Your task to perform on an android device: turn on javascript in the chrome app Image 0: 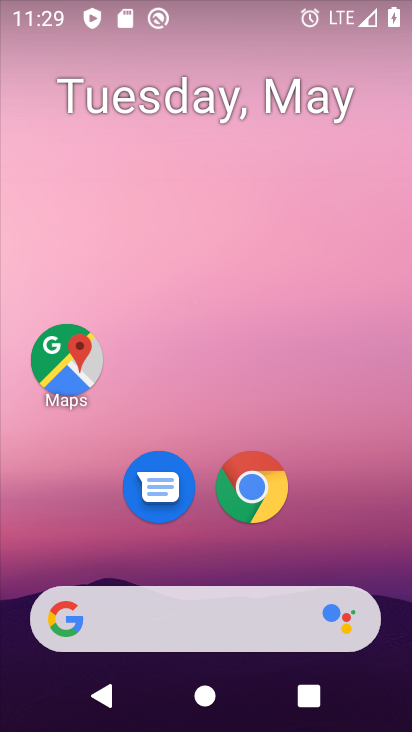
Step 0: drag from (209, 549) to (240, 114)
Your task to perform on an android device: turn on javascript in the chrome app Image 1: 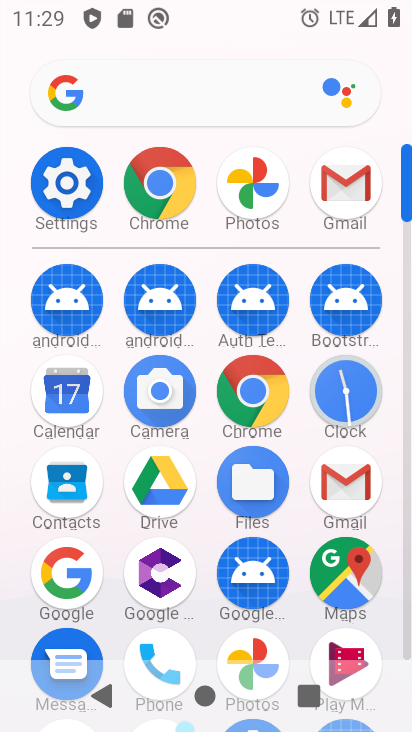
Step 1: click (250, 386)
Your task to perform on an android device: turn on javascript in the chrome app Image 2: 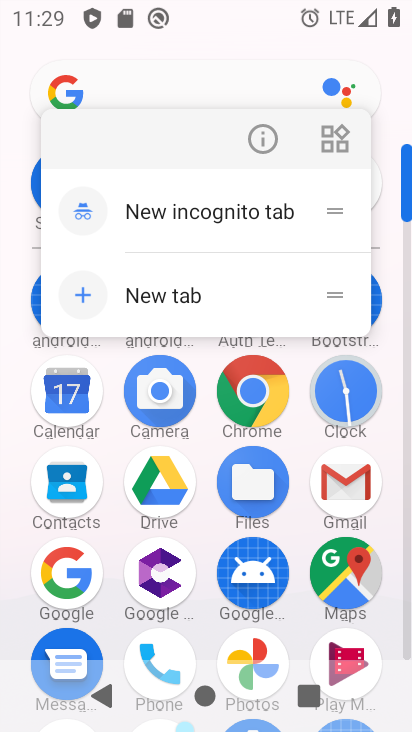
Step 2: click (258, 154)
Your task to perform on an android device: turn on javascript in the chrome app Image 3: 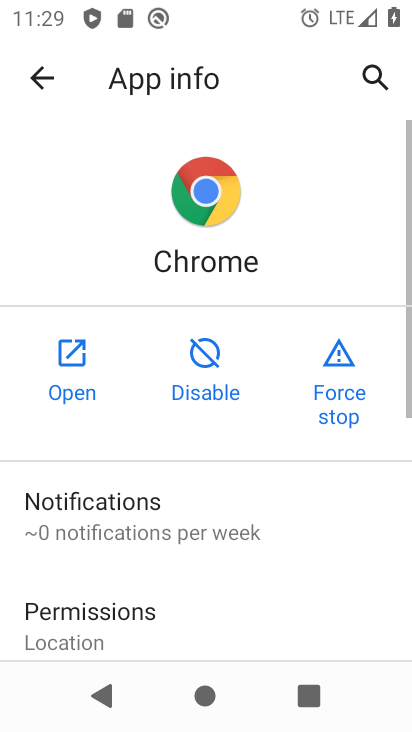
Step 3: click (80, 340)
Your task to perform on an android device: turn on javascript in the chrome app Image 4: 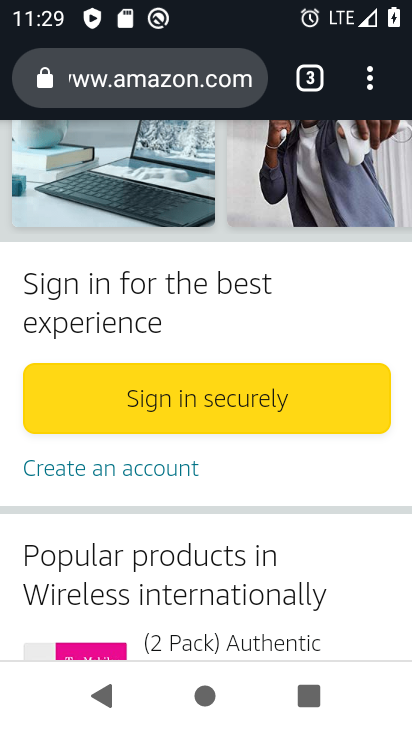
Step 4: drag from (257, 592) to (258, 300)
Your task to perform on an android device: turn on javascript in the chrome app Image 5: 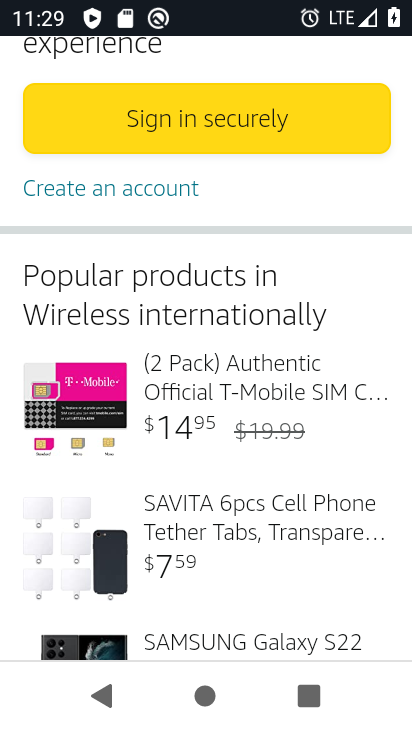
Step 5: drag from (260, 265) to (328, 661)
Your task to perform on an android device: turn on javascript in the chrome app Image 6: 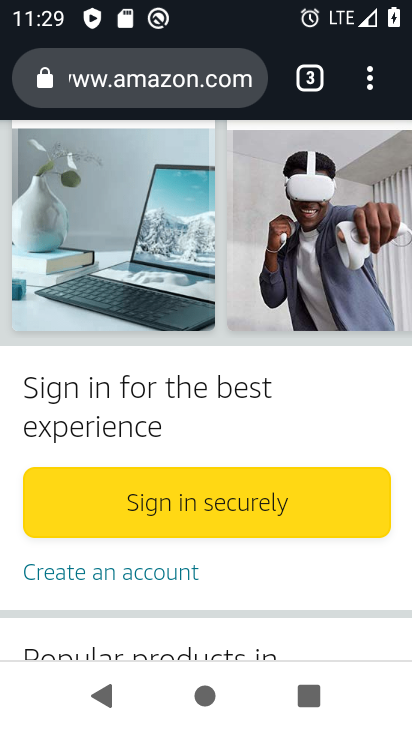
Step 6: click (374, 86)
Your task to perform on an android device: turn on javascript in the chrome app Image 7: 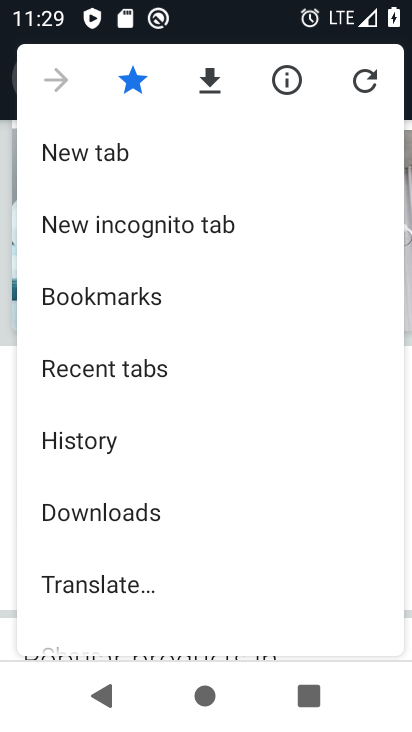
Step 7: drag from (167, 501) to (200, 126)
Your task to perform on an android device: turn on javascript in the chrome app Image 8: 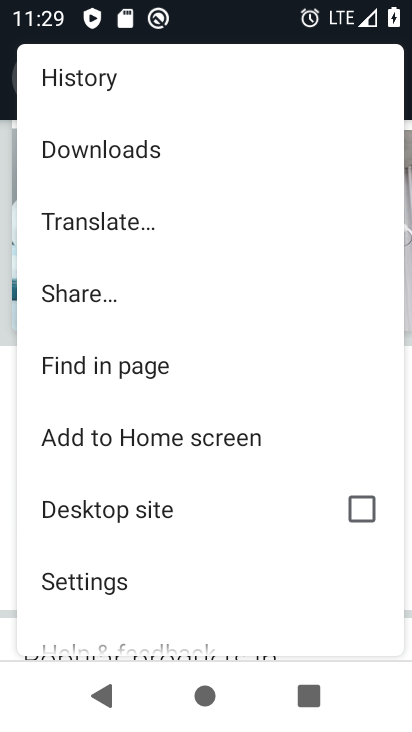
Step 8: click (130, 574)
Your task to perform on an android device: turn on javascript in the chrome app Image 9: 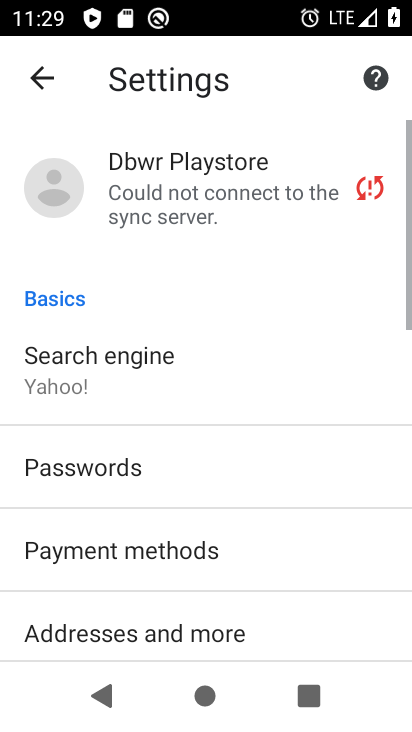
Step 9: drag from (158, 522) to (258, 114)
Your task to perform on an android device: turn on javascript in the chrome app Image 10: 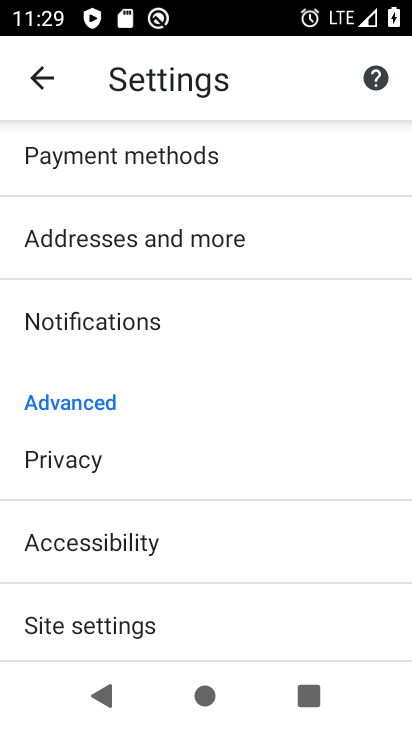
Step 10: drag from (258, 450) to (277, 267)
Your task to perform on an android device: turn on javascript in the chrome app Image 11: 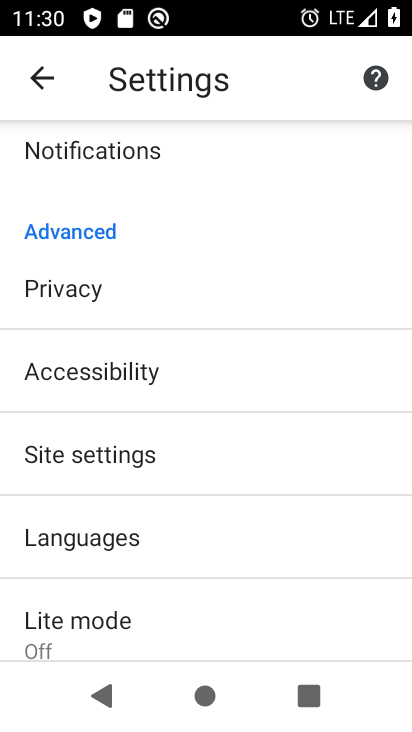
Step 11: click (144, 458)
Your task to perform on an android device: turn on javascript in the chrome app Image 12: 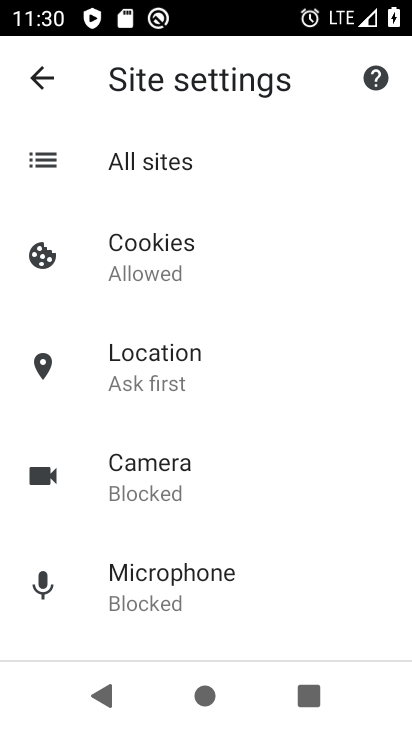
Step 12: drag from (226, 608) to (269, 320)
Your task to perform on an android device: turn on javascript in the chrome app Image 13: 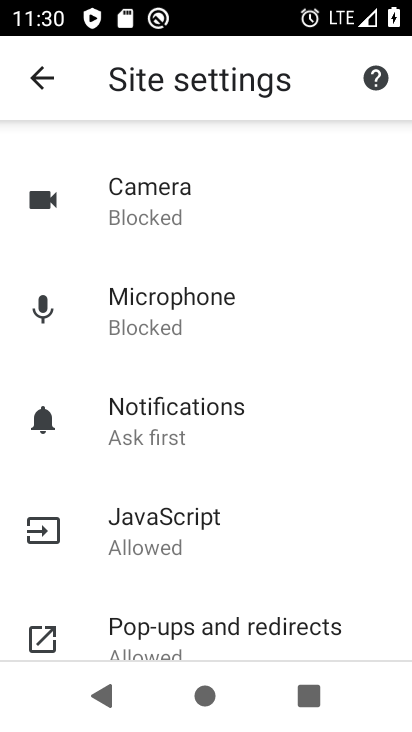
Step 13: click (205, 509)
Your task to perform on an android device: turn on javascript in the chrome app Image 14: 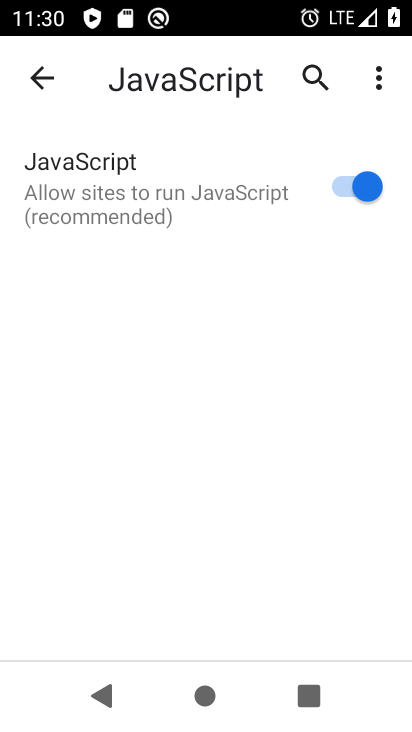
Step 14: task complete